Your task to perform on an android device: check out phone information Image 0: 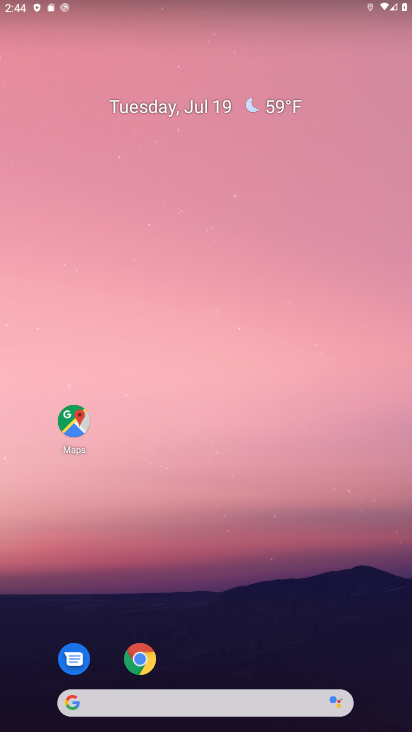
Step 0: drag from (208, 712) to (247, 192)
Your task to perform on an android device: check out phone information Image 1: 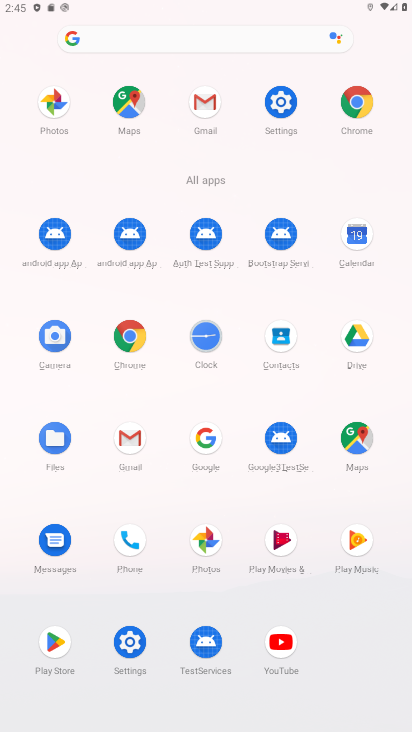
Step 1: click (278, 102)
Your task to perform on an android device: check out phone information Image 2: 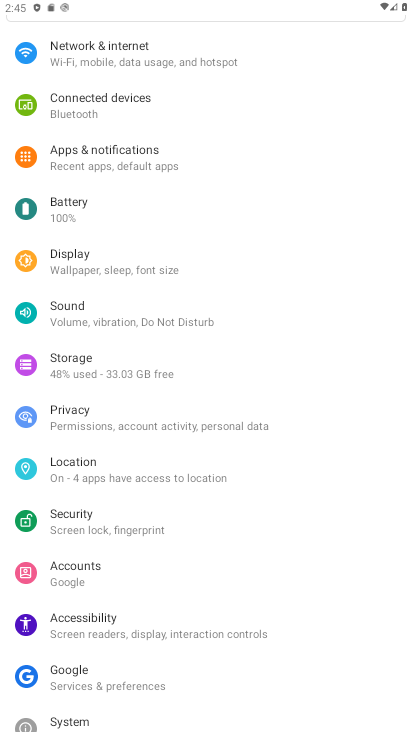
Step 2: drag from (134, 658) to (178, 564)
Your task to perform on an android device: check out phone information Image 3: 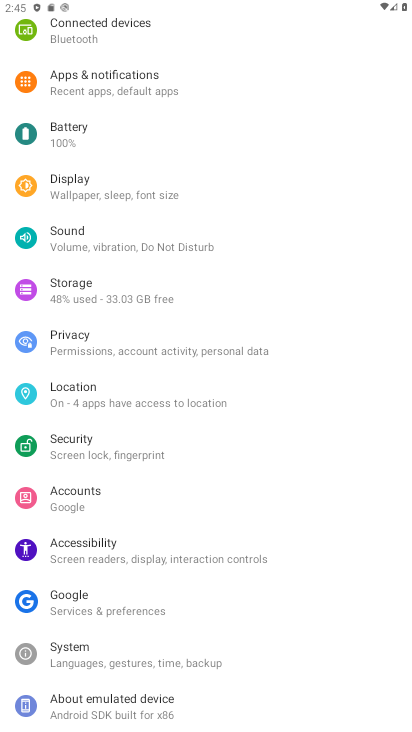
Step 3: click (129, 700)
Your task to perform on an android device: check out phone information Image 4: 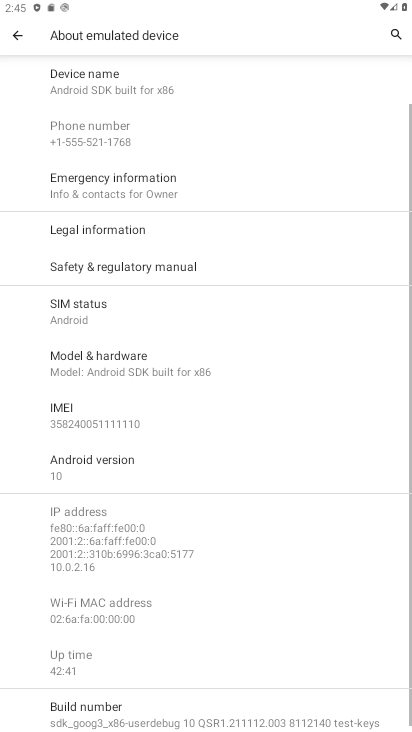
Step 4: task complete